Your task to perform on an android device: turn on sleep mode Image 0: 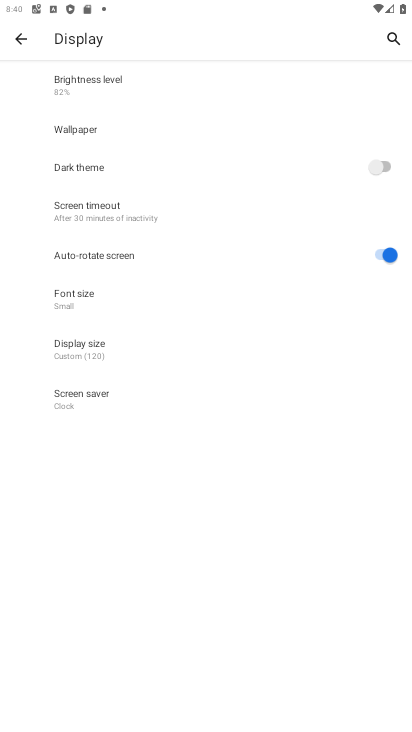
Step 0: task impossible